Your task to perform on an android device: set an alarm Image 0: 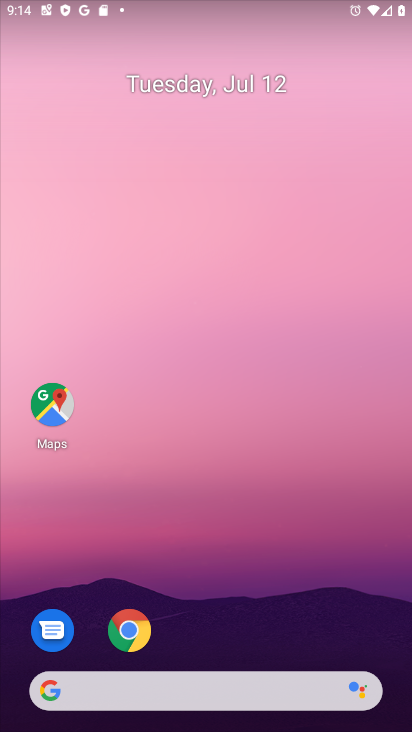
Step 0: drag from (207, 651) to (167, 166)
Your task to perform on an android device: set an alarm Image 1: 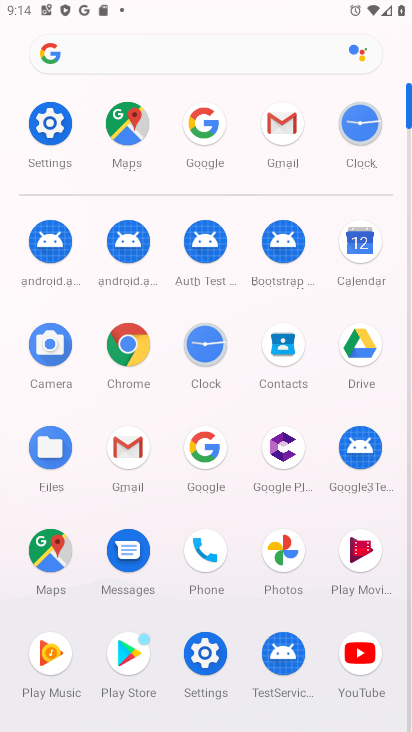
Step 1: click (207, 348)
Your task to perform on an android device: set an alarm Image 2: 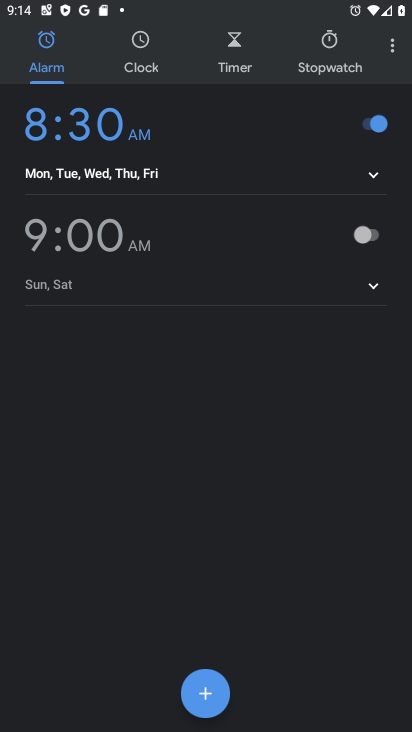
Step 2: click (368, 236)
Your task to perform on an android device: set an alarm Image 3: 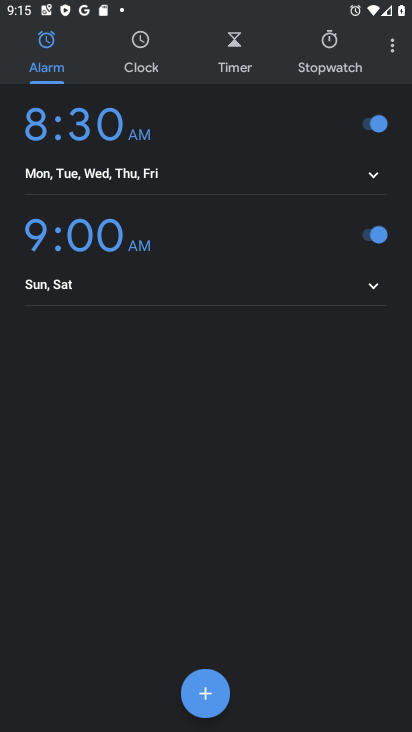
Step 3: task complete